Your task to perform on an android device: What's the weather? Image 0: 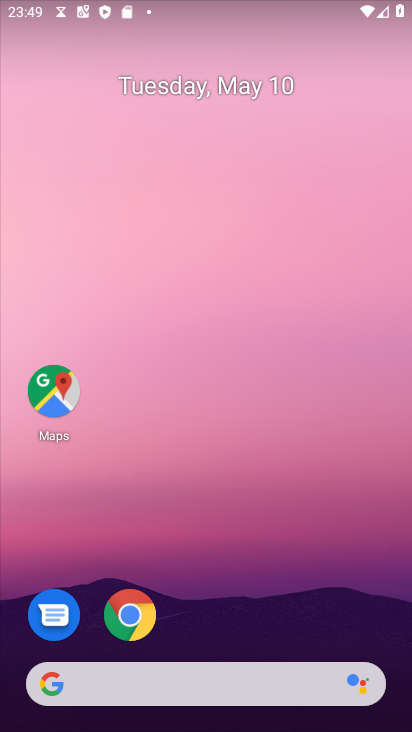
Step 0: drag from (243, 594) to (215, 30)
Your task to perform on an android device: What's the weather? Image 1: 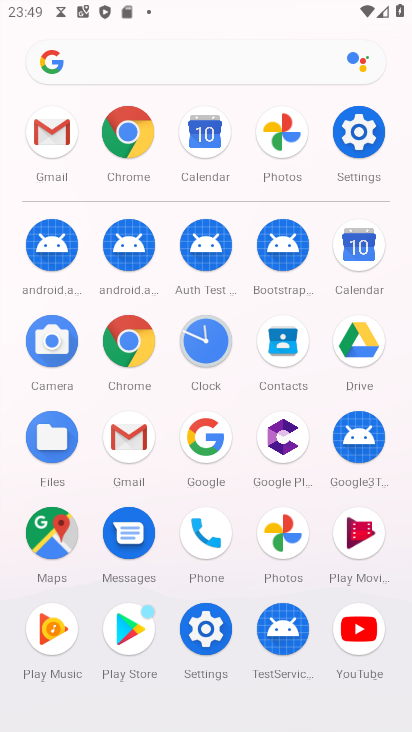
Step 1: click (202, 437)
Your task to perform on an android device: What's the weather? Image 2: 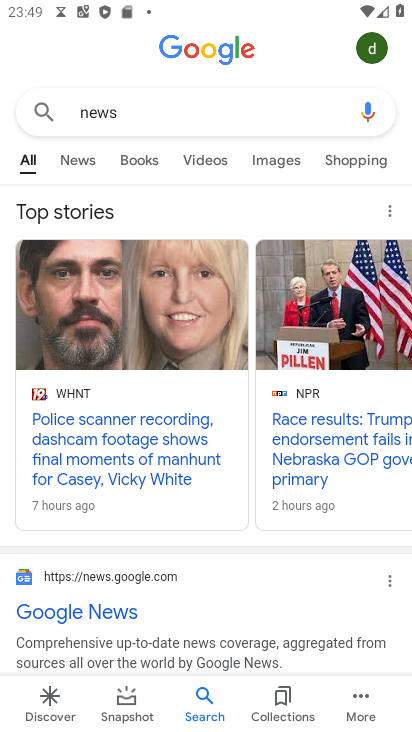
Step 2: click (235, 99)
Your task to perform on an android device: What's the weather? Image 3: 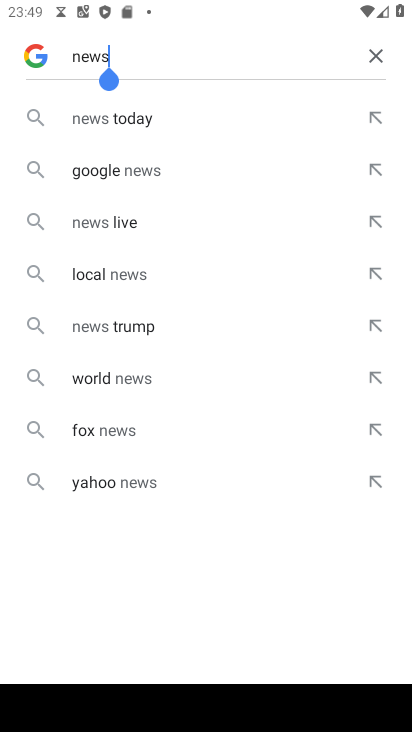
Step 3: click (375, 52)
Your task to perform on an android device: What's the weather? Image 4: 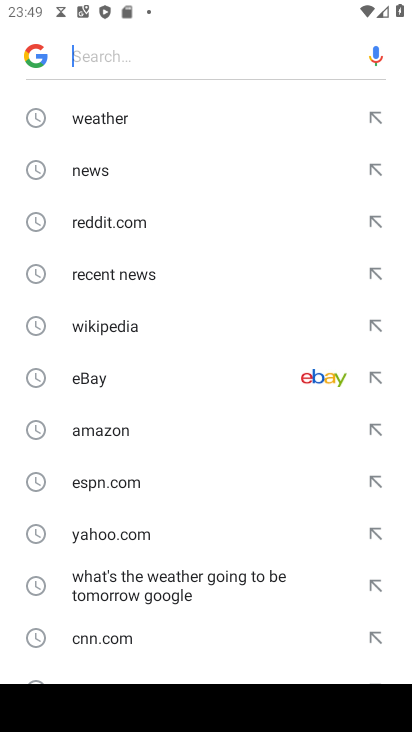
Step 4: click (101, 122)
Your task to perform on an android device: What's the weather? Image 5: 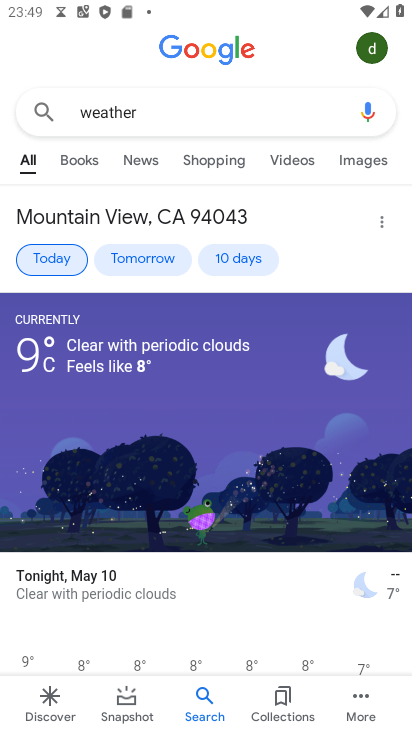
Step 5: task complete